Your task to perform on an android device: empty trash in google photos Image 0: 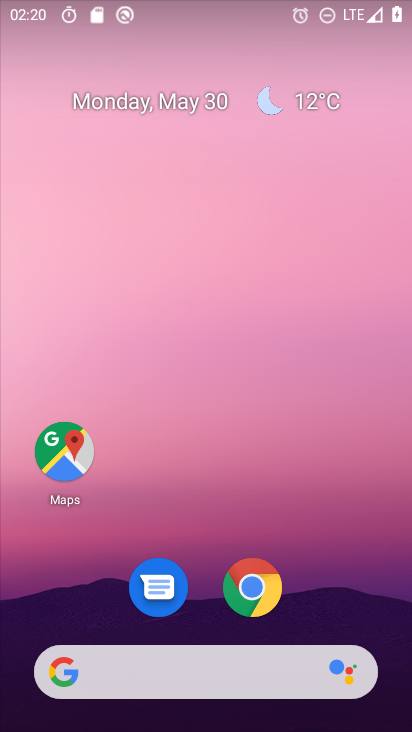
Step 0: drag from (350, 535) to (336, 104)
Your task to perform on an android device: empty trash in google photos Image 1: 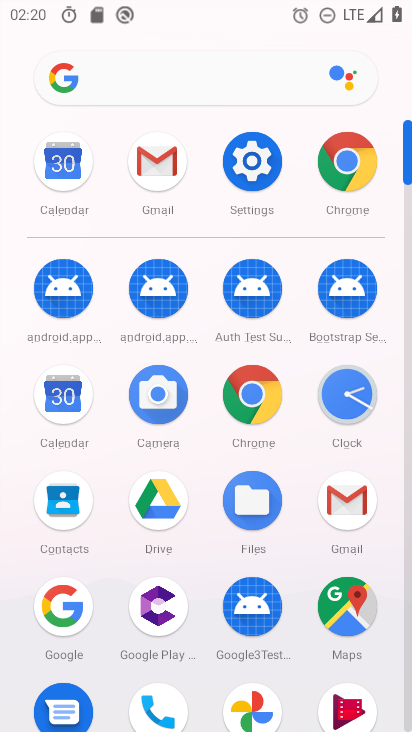
Step 1: drag from (306, 560) to (295, 169)
Your task to perform on an android device: empty trash in google photos Image 2: 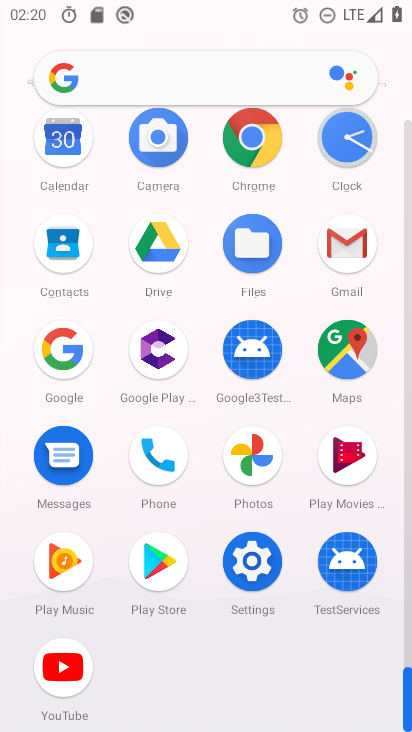
Step 2: click (247, 467)
Your task to perform on an android device: empty trash in google photos Image 3: 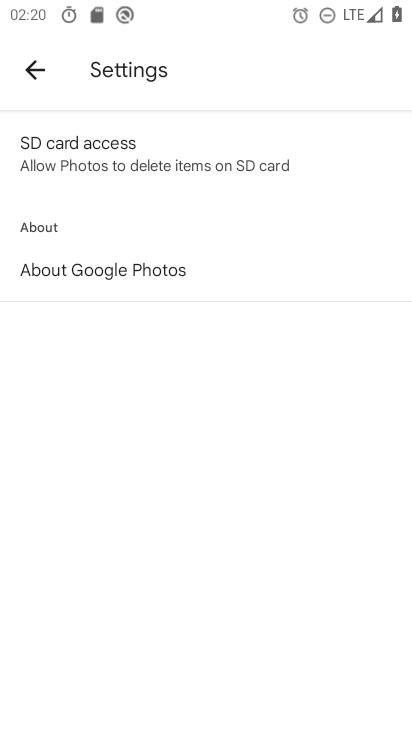
Step 3: click (25, 73)
Your task to perform on an android device: empty trash in google photos Image 4: 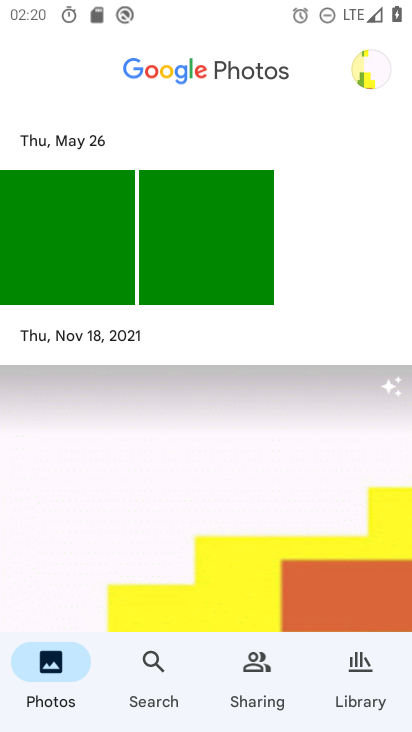
Step 4: click (358, 666)
Your task to perform on an android device: empty trash in google photos Image 5: 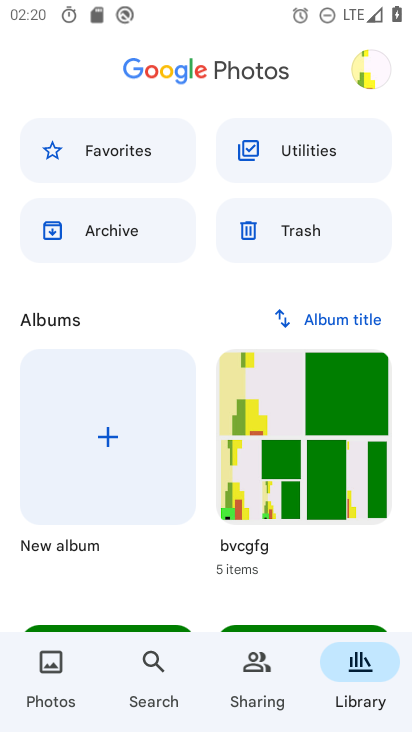
Step 5: click (314, 240)
Your task to perform on an android device: empty trash in google photos Image 6: 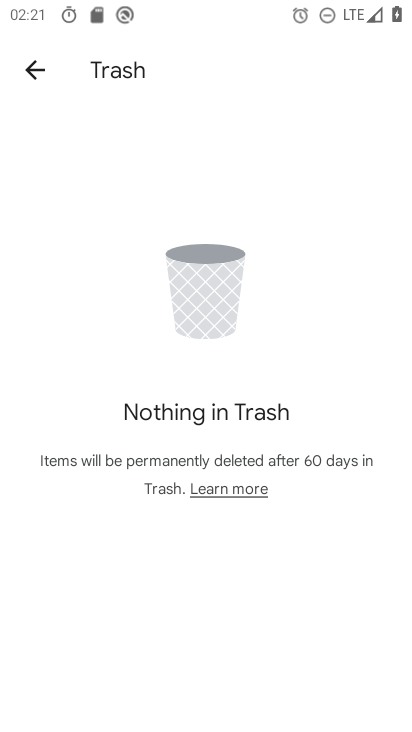
Step 6: task complete